Your task to perform on an android device: Open Android settings Image 0: 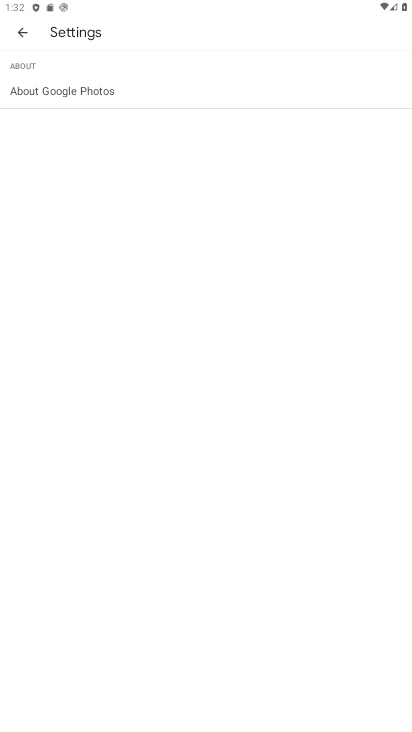
Step 0: press home button
Your task to perform on an android device: Open Android settings Image 1: 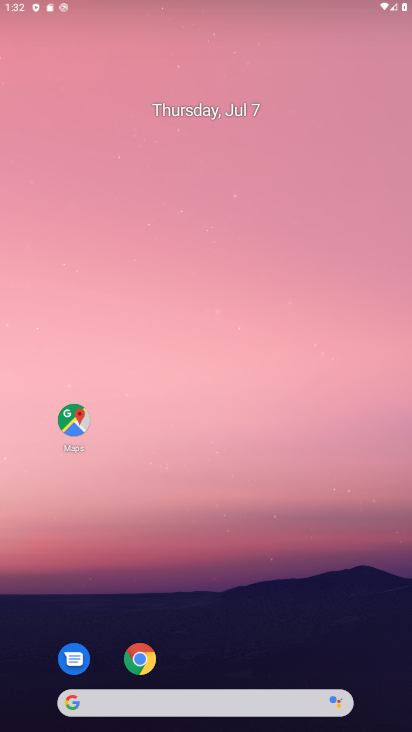
Step 1: drag from (243, 644) to (274, 113)
Your task to perform on an android device: Open Android settings Image 2: 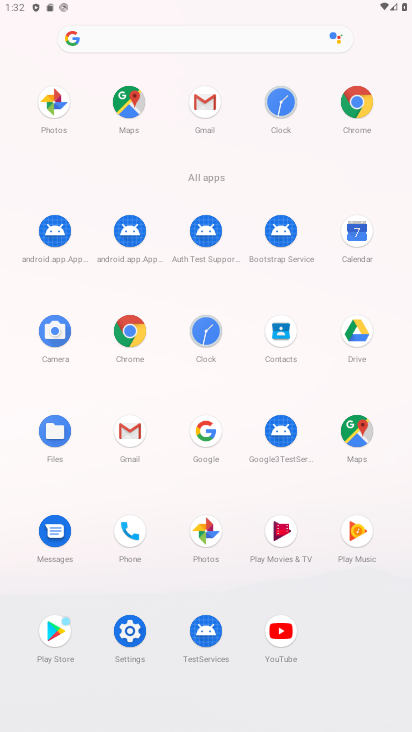
Step 2: click (124, 631)
Your task to perform on an android device: Open Android settings Image 3: 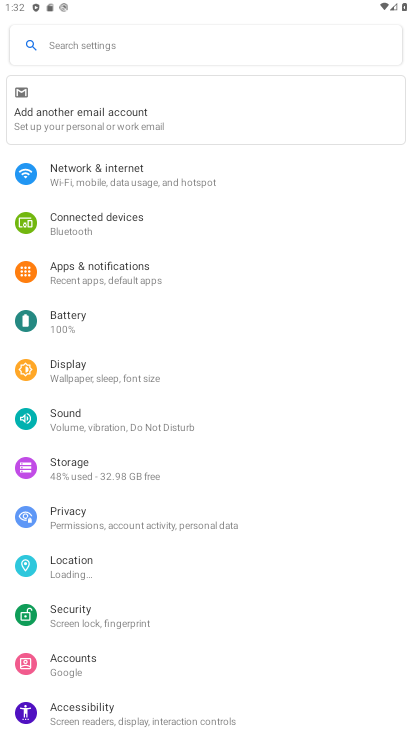
Step 3: task complete